Your task to perform on an android device: toggle data saver in the chrome app Image 0: 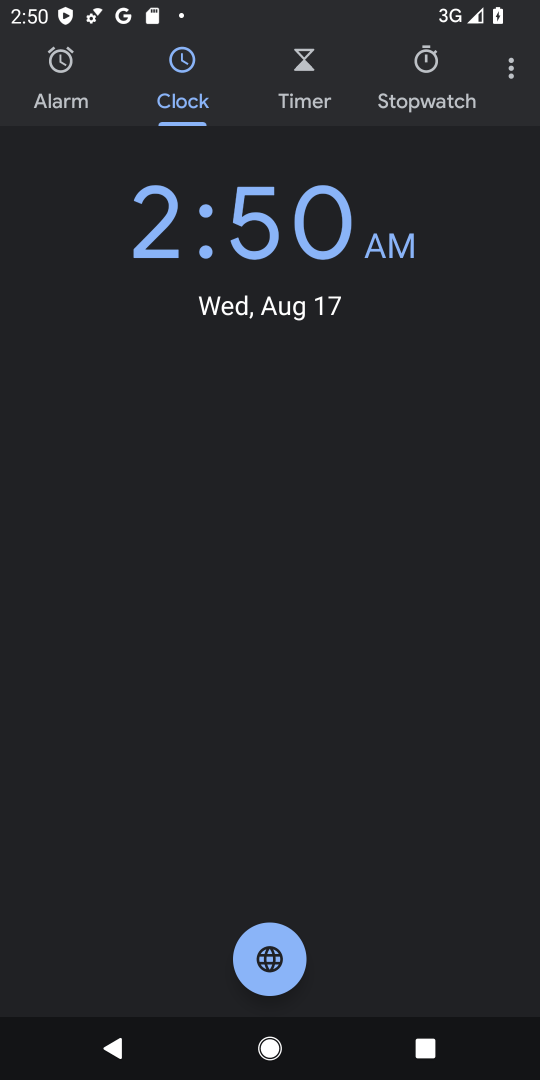
Step 0: press back button
Your task to perform on an android device: toggle data saver in the chrome app Image 1: 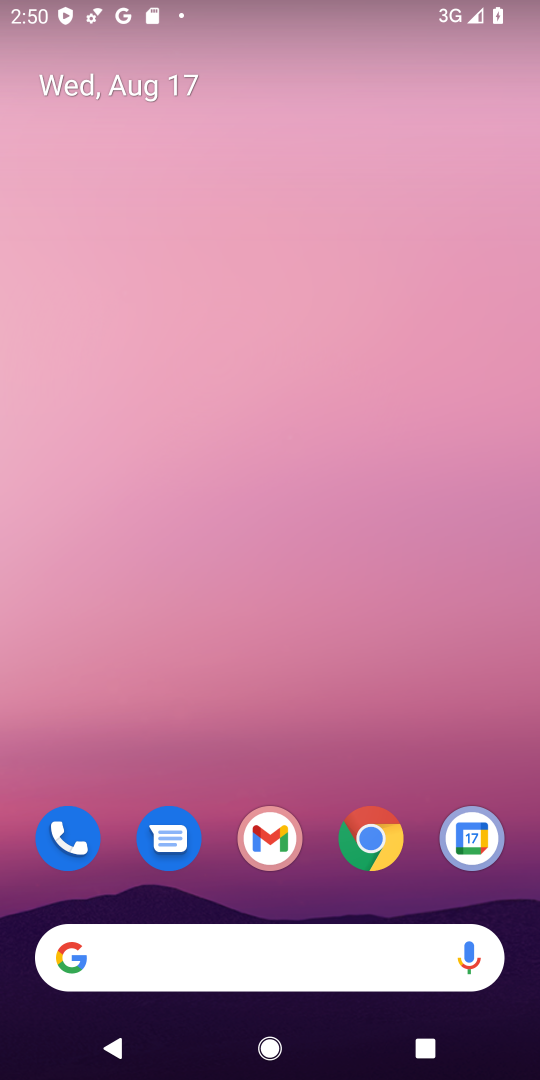
Step 1: click (375, 833)
Your task to perform on an android device: toggle data saver in the chrome app Image 2: 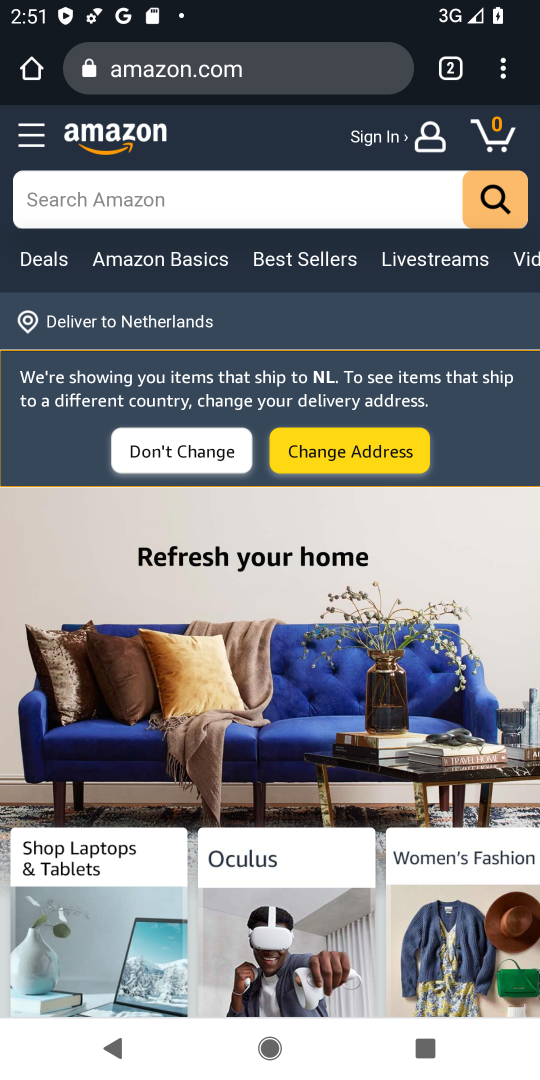
Step 2: drag from (506, 65) to (300, 853)
Your task to perform on an android device: toggle data saver in the chrome app Image 3: 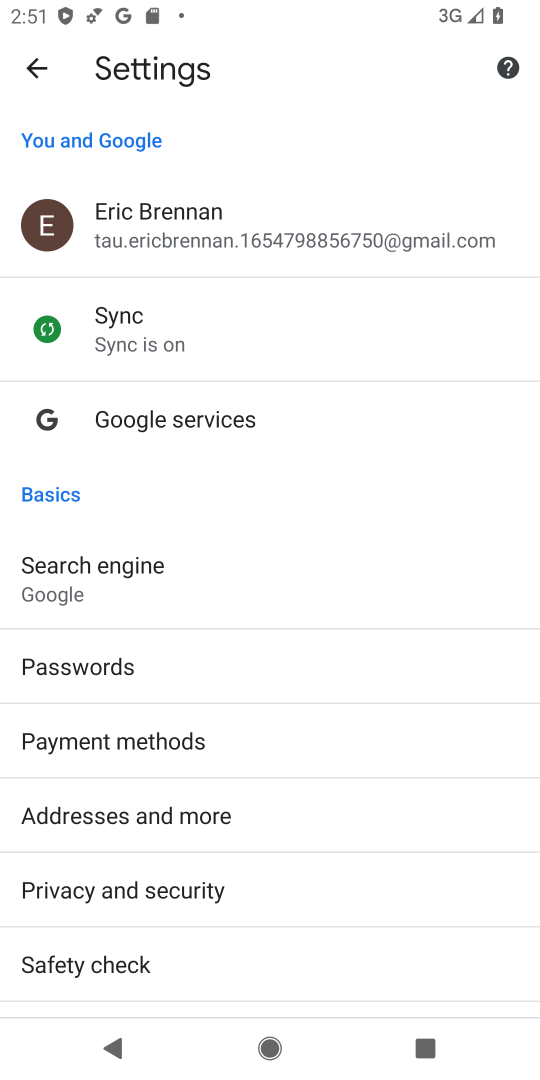
Step 3: drag from (178, 966) to (301, 445)
Your task to perform on an android device: toggle data saver in the chrome app Image 4: 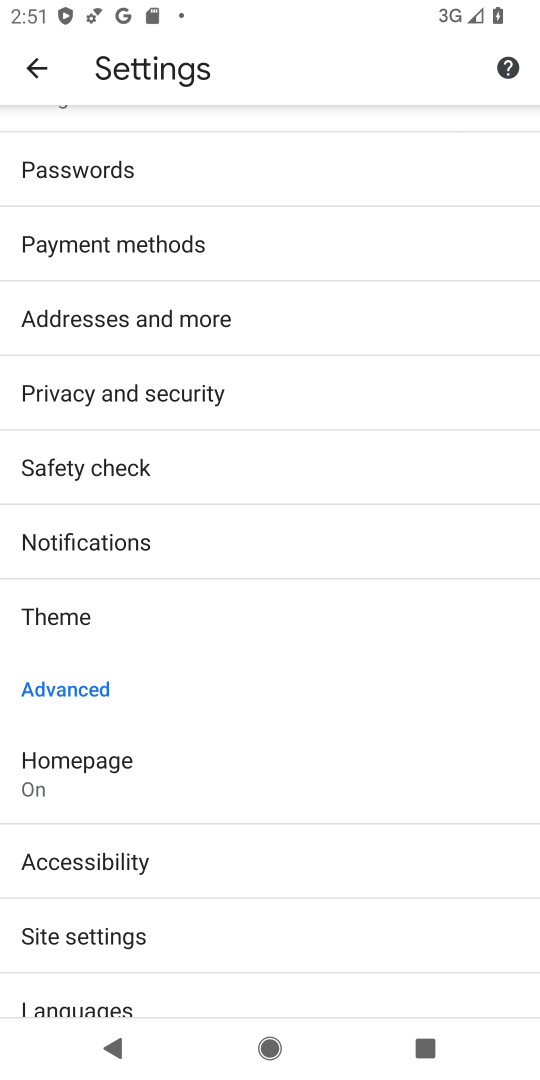
Step 4: drag from (149, 930) to (112, 1051)
Your task to perform on an android device: toggle data saver in the chrome app Image 5: 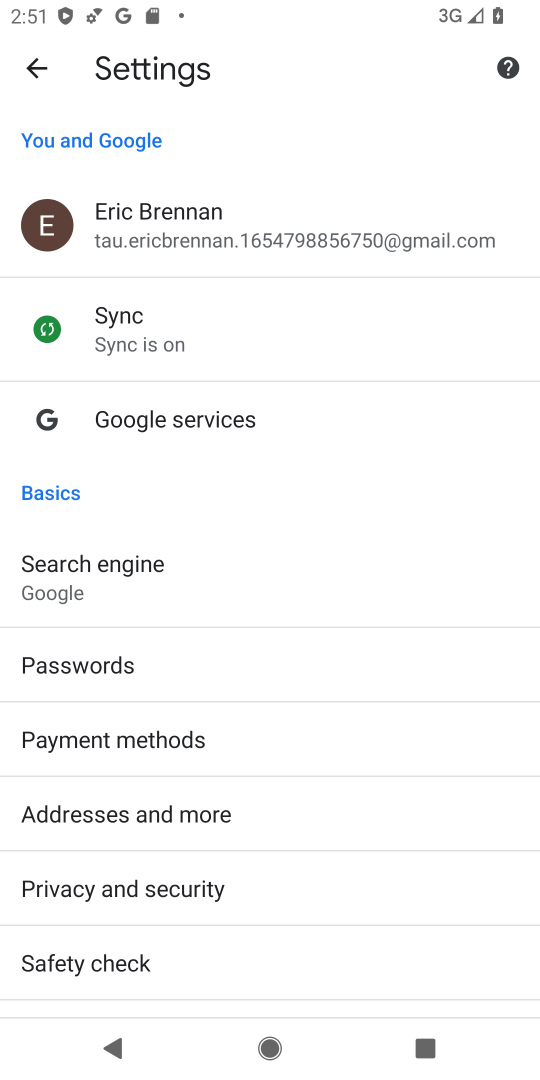
Step 5: press back button
Your task to perform on an android device: toggle data saver in the chrome app Image 6: 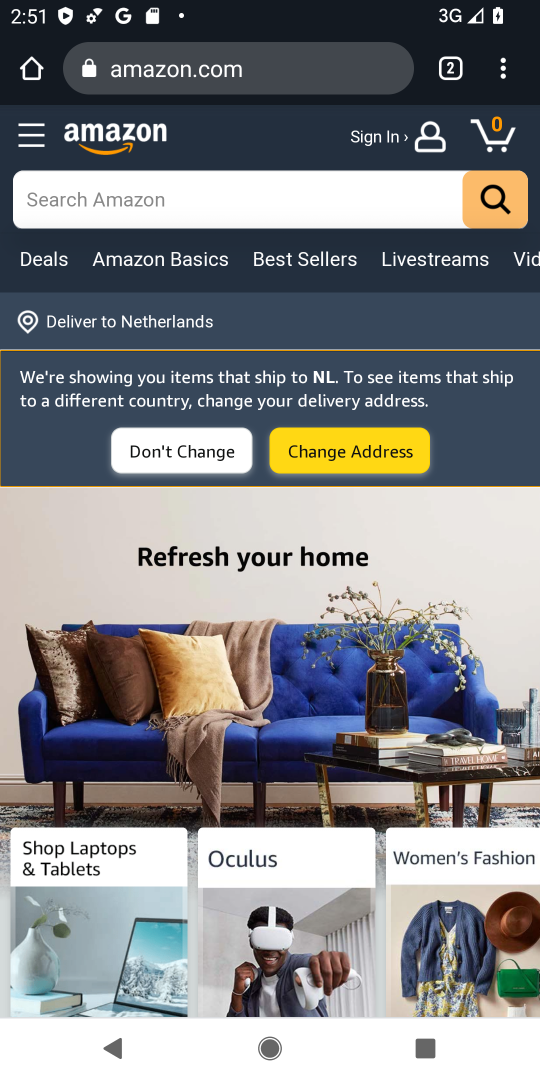
Step 6: drag from (497, 64) to (300, 867)
Your task to perform on an android device: toggle data saver in the chrome app Image 7: 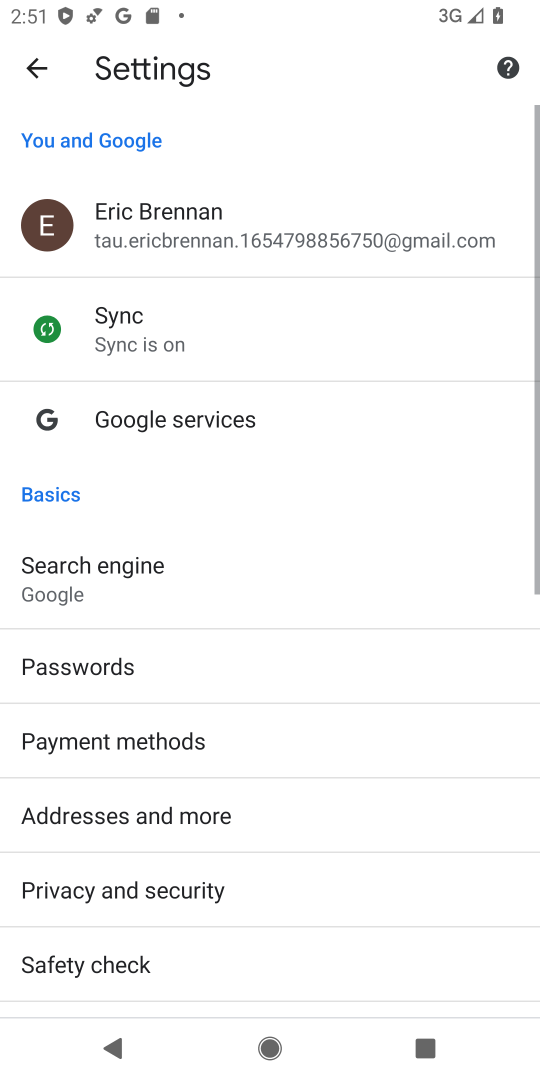
Step 7: drag from (264, 909) to (352, 356)
Your task to perform on an android device: toggle data saver in the chrome app Image 8: 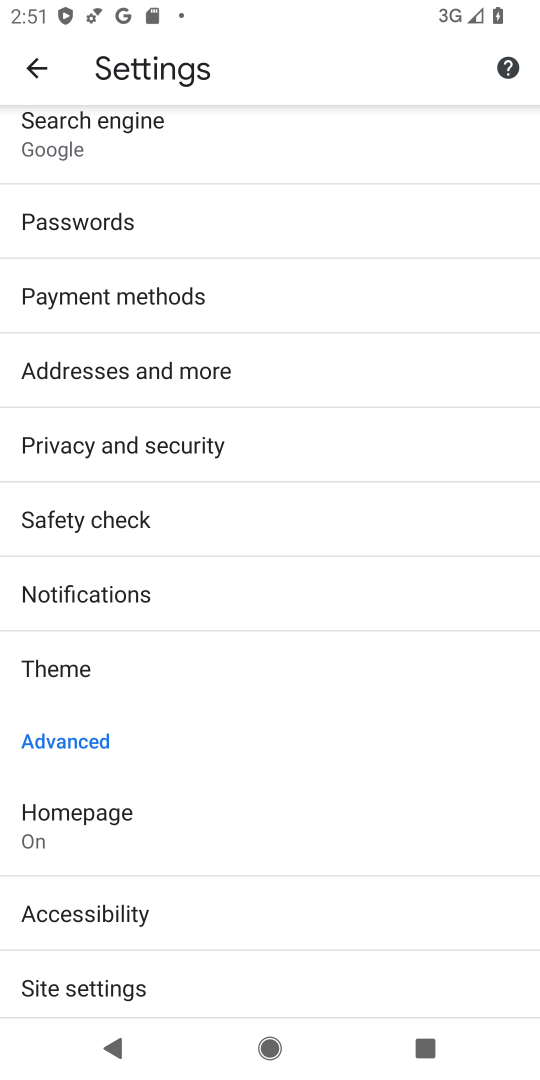
Step 8: drag from (200, 959) to (277, 220)
Your task to perform on an android device: toggle data saver in the chrome app Image 9: 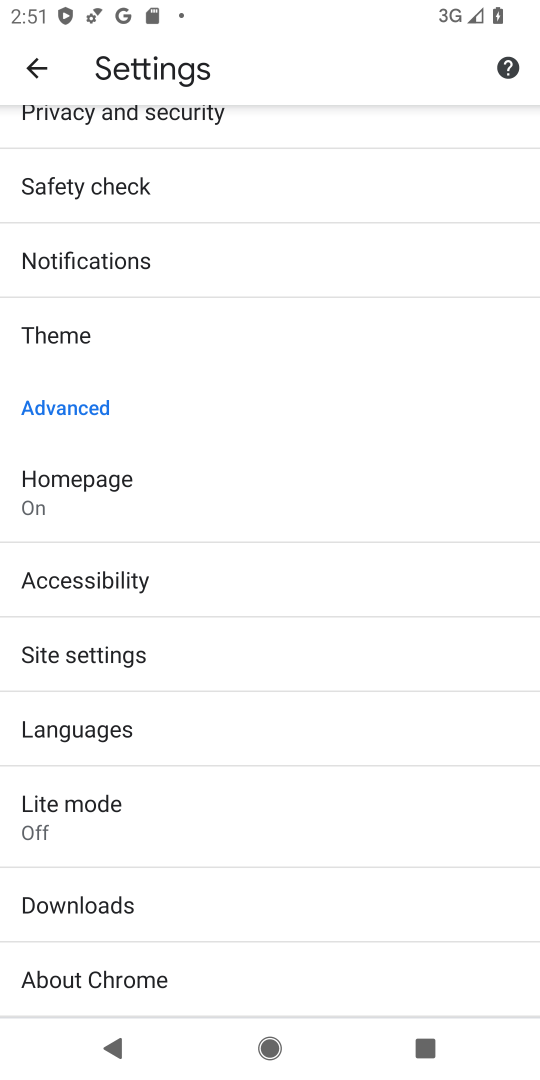
Step 9: click (93, 817)
Your task to perform on an android device: toggle data saver in the chrome app Image 10: 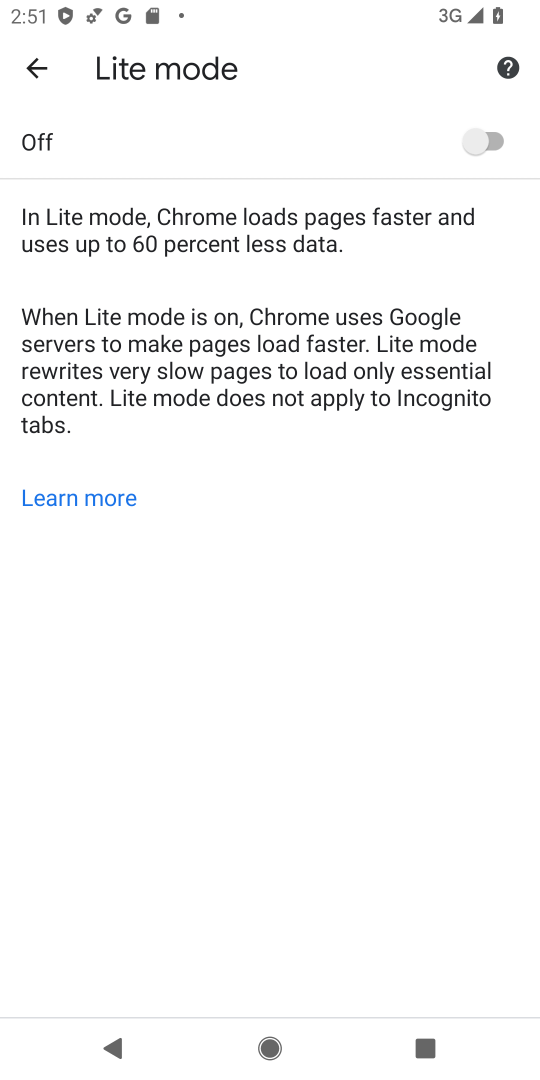
Step 10: click (492, 127)
Your task to perform on an android device: toggle data saver in the chrome app Image 11: 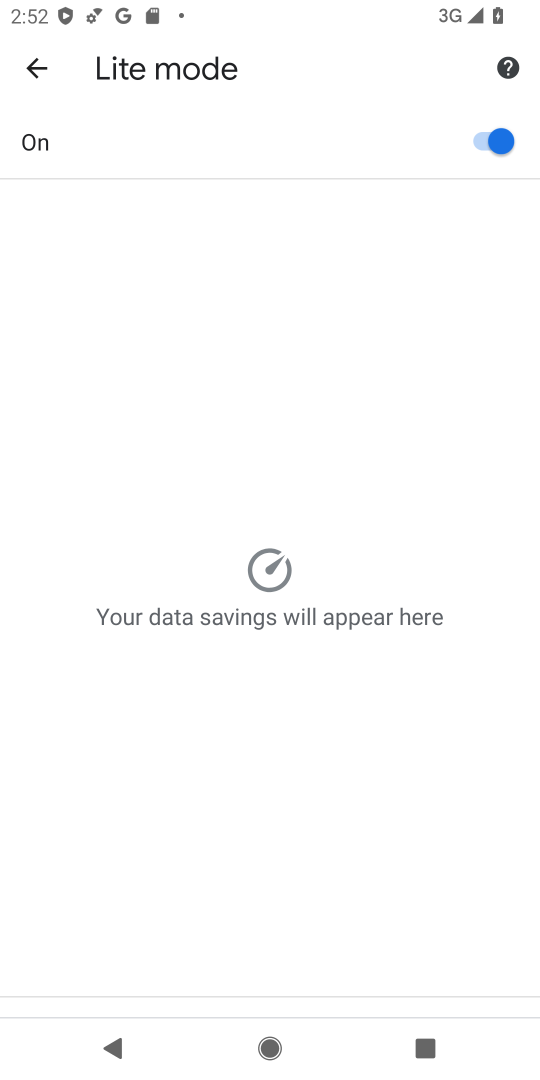
Step 11: click (493, 139)
Your task to perform on an android device: toggle data saver in the chrome app Image 12: 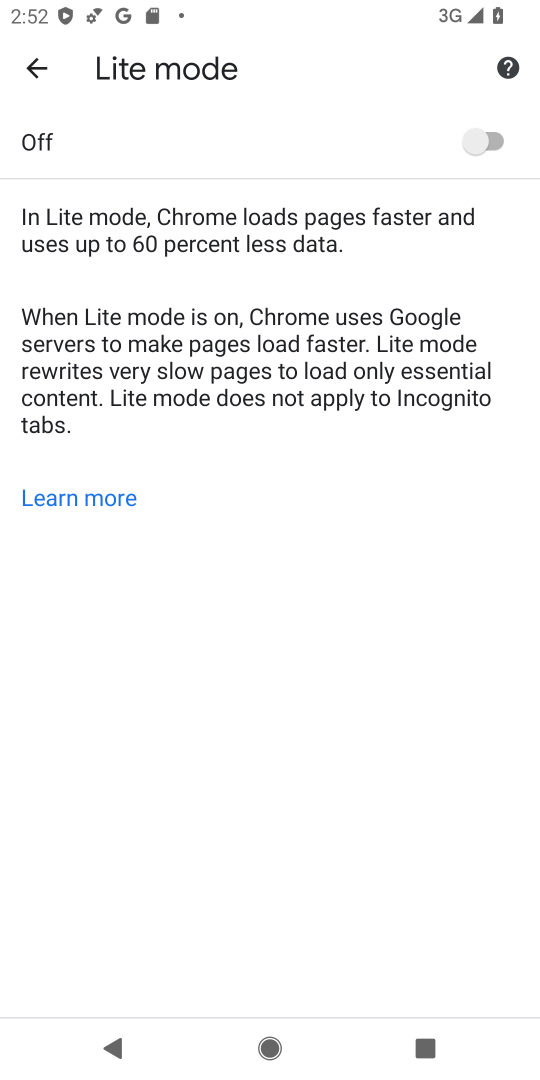
Step 12: task complete